Your task to perform on an android device: Open display settings Image 0: 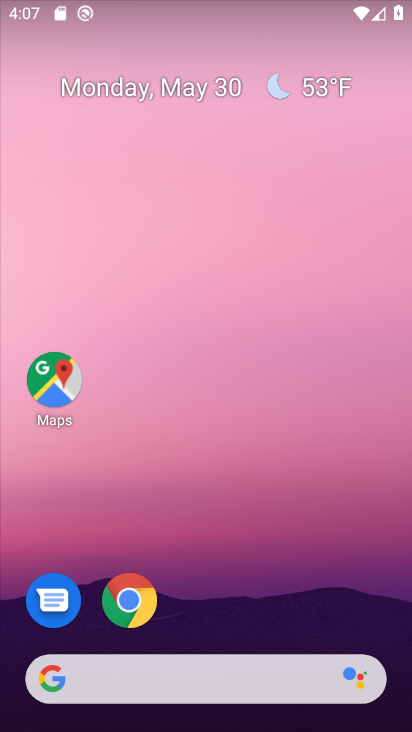
Step 0: drag from (358, 583) to (317, 105)
Your task to perform on an android device: Open display settings Image 1: 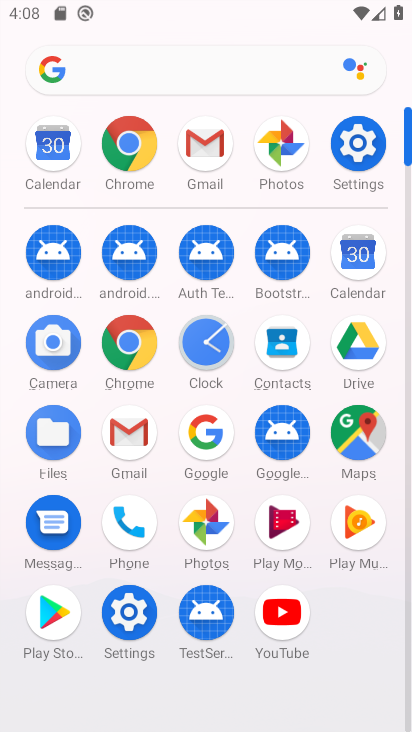
Step 1: click (351, 145)
Your task to perform on an android device: Open display settings Image 2: 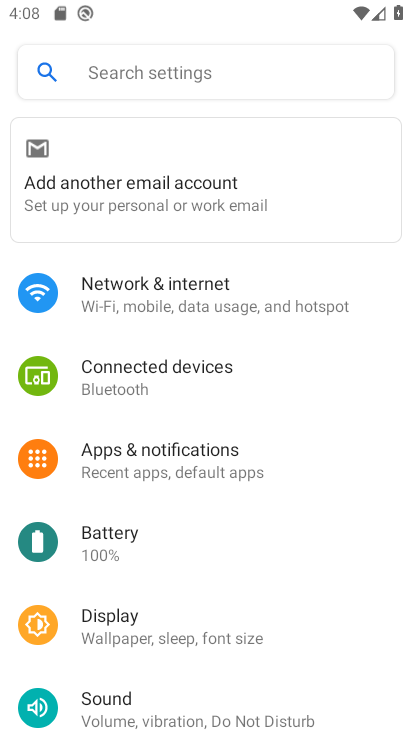
Step 2: click (165, 638)
Your task to perform on an android device: Open display settings Image 3: 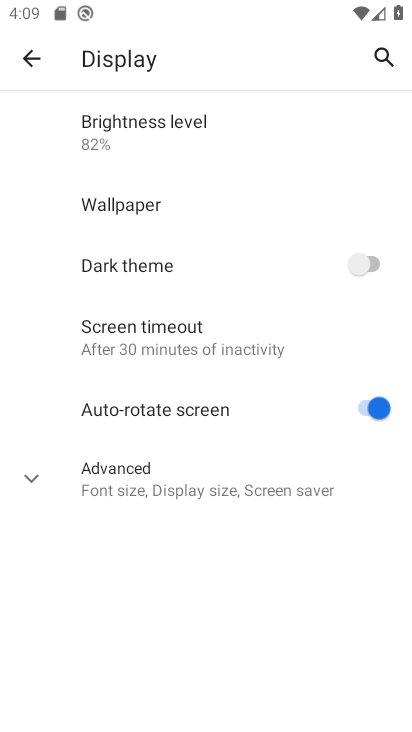
Step 3: task complete